Your task to perform on an android device: turn on translation in the chrome app Image 0: 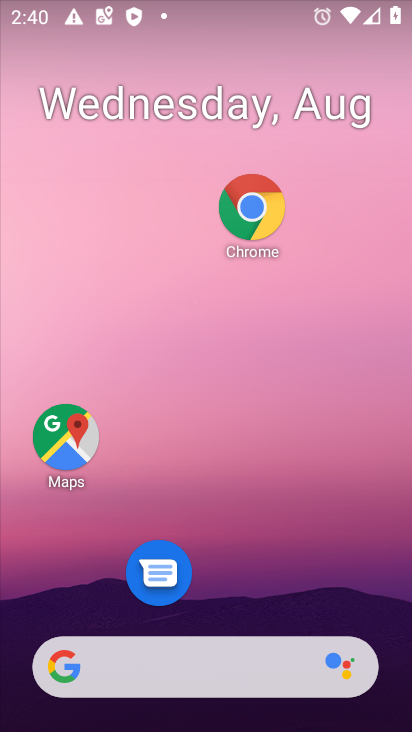
Step 0: click (259, 190)
Your task to perform on an android device: turn on translation in the chrome app Image 1: 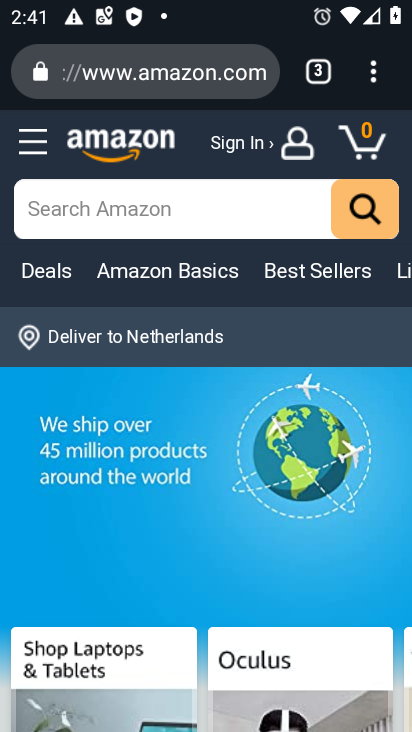
Step 1: click (367, 66)
Your task to perform on an android device: turn on translation in the chrome app Image 2: 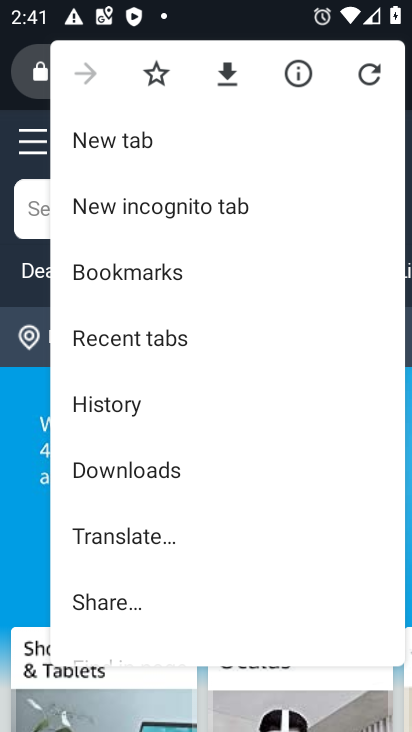
Step 2: click (124, 526)
Your task to perform on an android device: turn on translation in the chrome app Image 3: 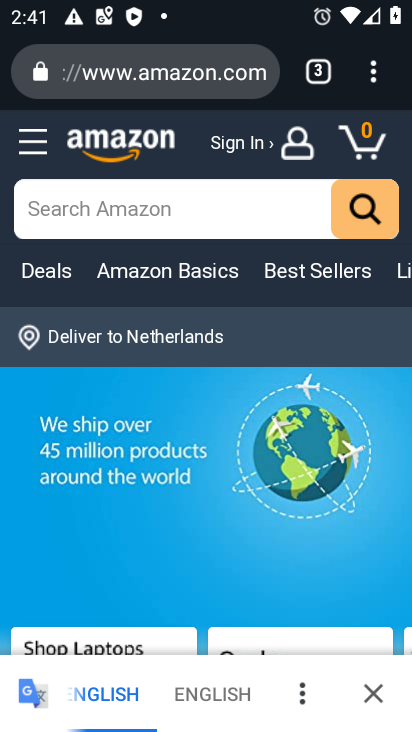
Step 3: click (302, 697)
Your task to perform on an android device: turn on translation in the chrome app Image 4: 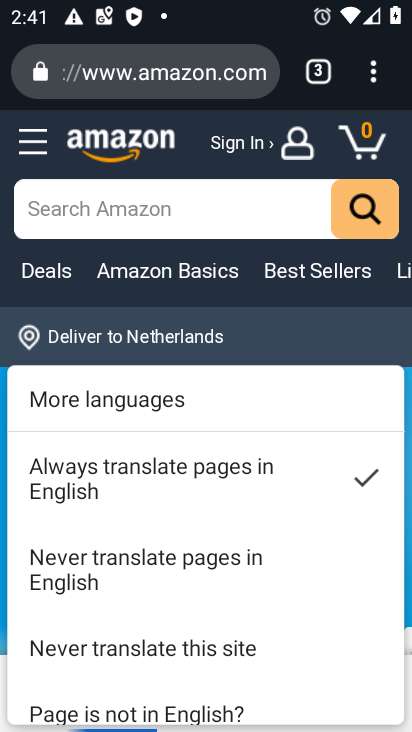
Step 4: task complete